Your task to perform on an android device: turn on the 24-hour format for clock Image 0: 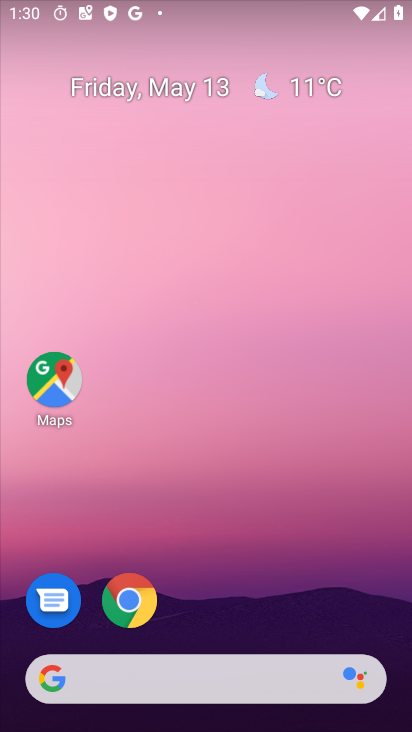
Step 0: drag from (290, 519) to (386, 296)
Your task to perform on an android device: turn on the 24-hour format for clock Image 1: 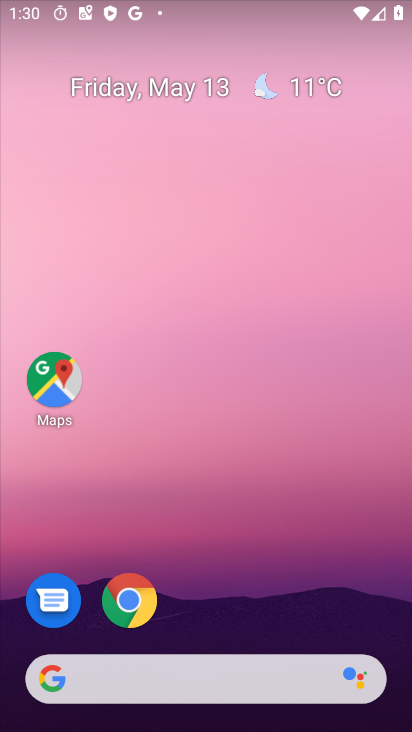
Step 1: drag from (203, 623) to (233, 233)
Your task to perform on an android device: turn on the 24-hour format for clock Image 2: 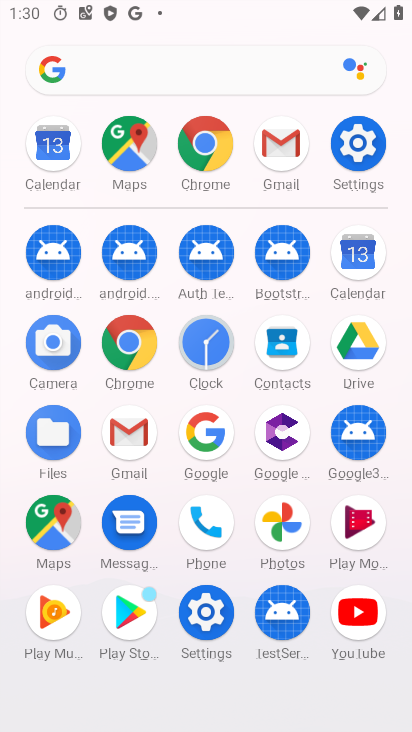
Step 2: click (211, 342)
Your task to perform on an android device: turn on the 24-hour format for clock Image 3: 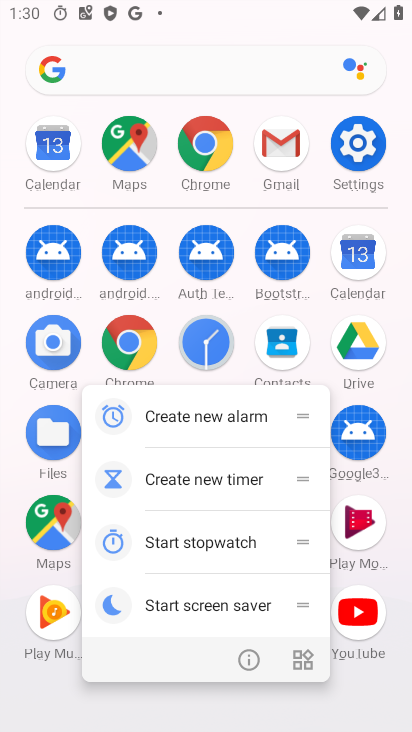
Step 3: click (253, 650)
Your task to perform on an android device: turn on the 24-hour format for clock Image 4: 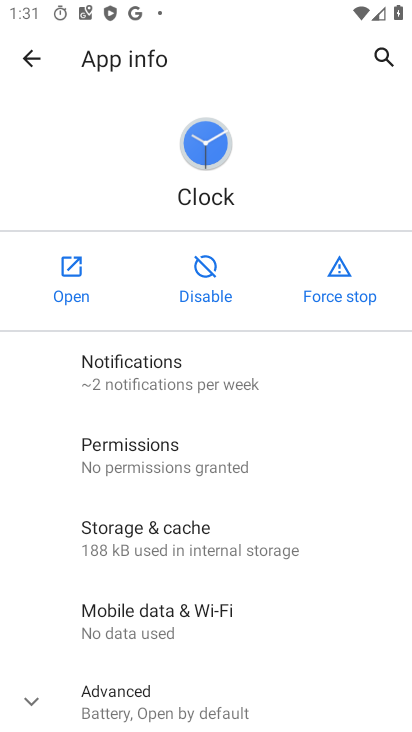
Step 4: click (77, 268)
Your task to perform on an android device: turn on the 24-hour format for clock Image 5: 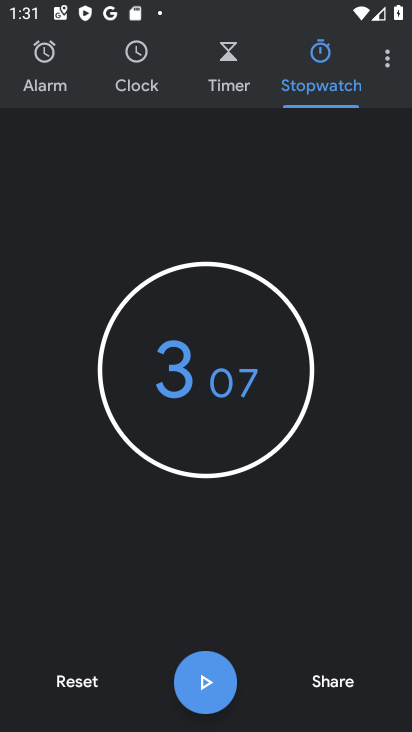
Step 5: drag from (242, 467) to (281, 179)
Your task to perform on an android device: turn on the 24-hour format for clock Image 6: 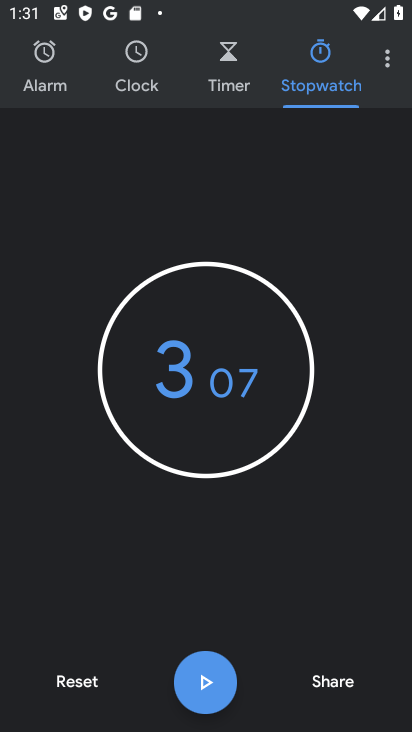
Step 6: click (79, 680)
Your task to perform on an android device: turn on the 24-hour format for clock Image 7: 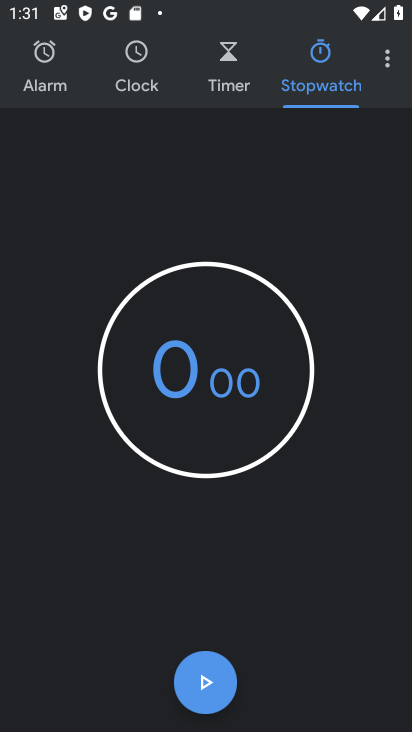
Step 7: click (394, 59)
Your task to perform on an android device: turn on the 24-hour format for clock Image 8: 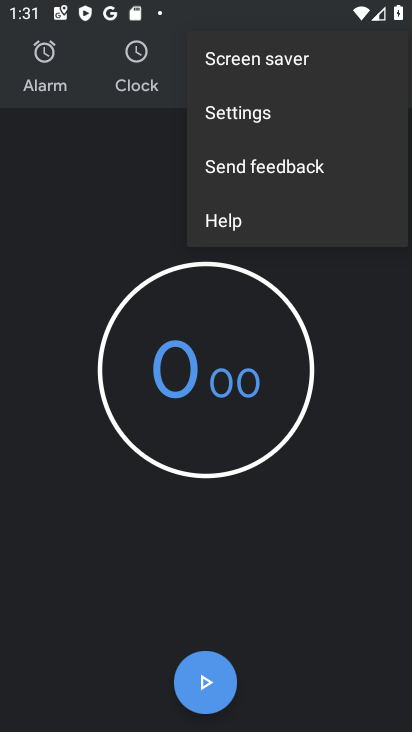
Step 8: click (294, 122)
Your task to perform on an android device: turn on the 24-hour format for clock Image 9: 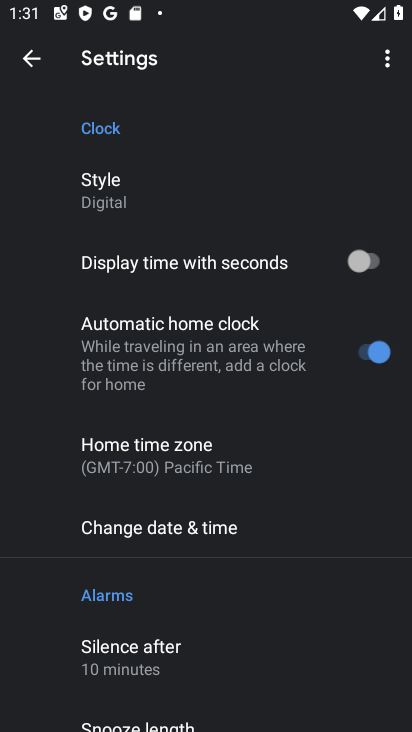
Step 9: click (200, 517)
Your task to perform on an android device: turn on the 24-hour format for clock Image 10: 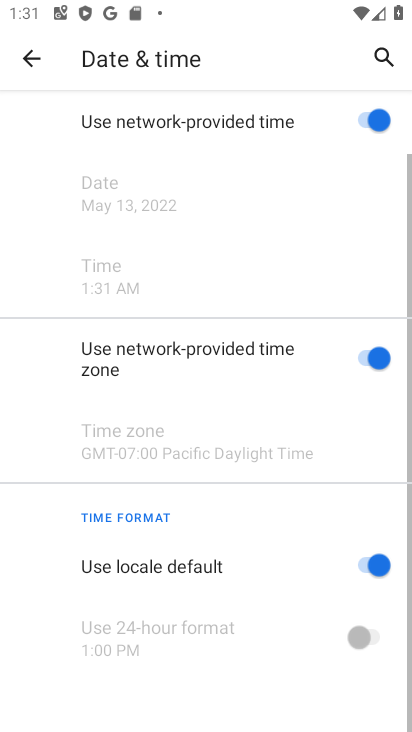
Step 10: drag from (218, 560) to (316, 149)
Your task to perform on an android device: turn on the 24-hour format for clock Image 11: 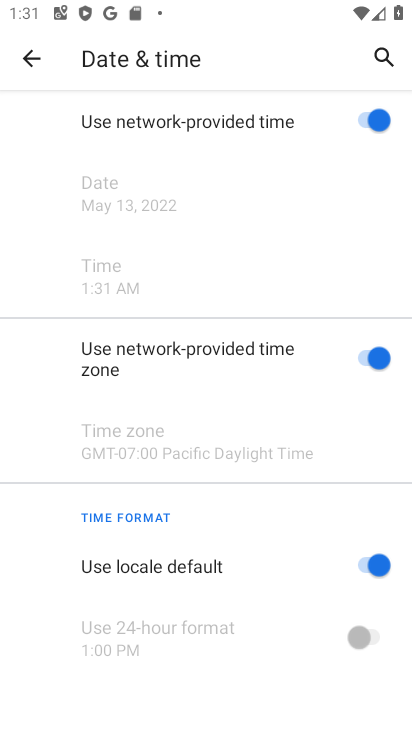
Step 11: click (353, 578)
Your task to perform on an android device: turn on the 24-hour format for clock Image 12: 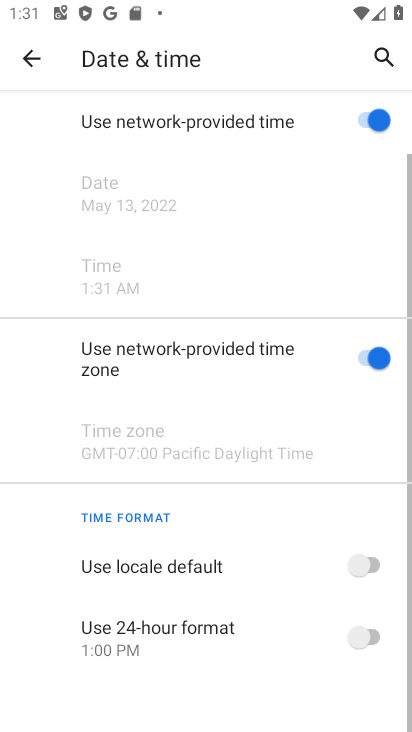
Step 12: click (343, 639)
Your task to perform on an android device: turn on the 24-hour format for clock Image 13: 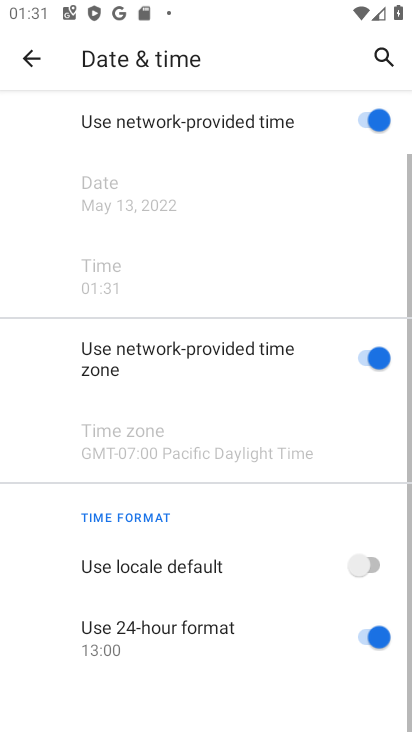
Step 13: task complete